Your task to perform on an android device: empty trash in the gmail app Image 0: 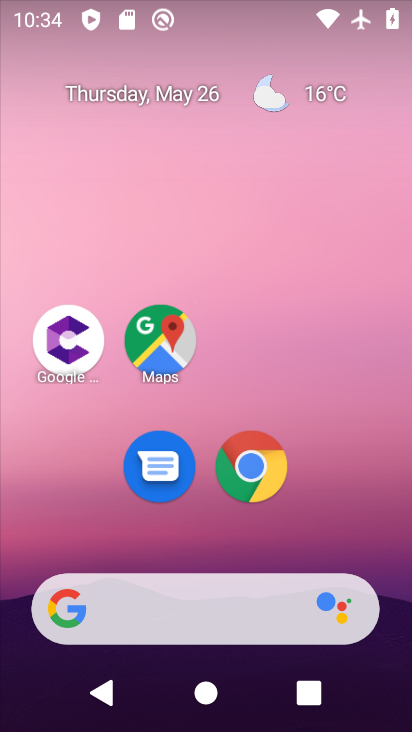
Step 0: drag from (333, 487) to (210, 120)
Your task to perform on an android device: empty trash in the gmail app Image 1: 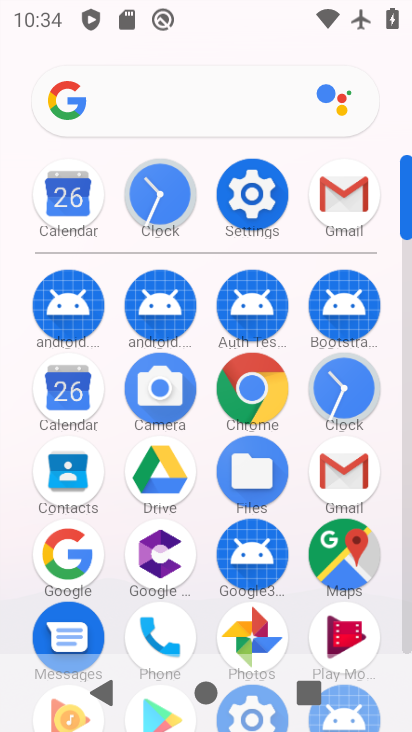
Step 1: click (338, 482)
Your task to perform on an android device: empty trash in the gmail app Image 2: 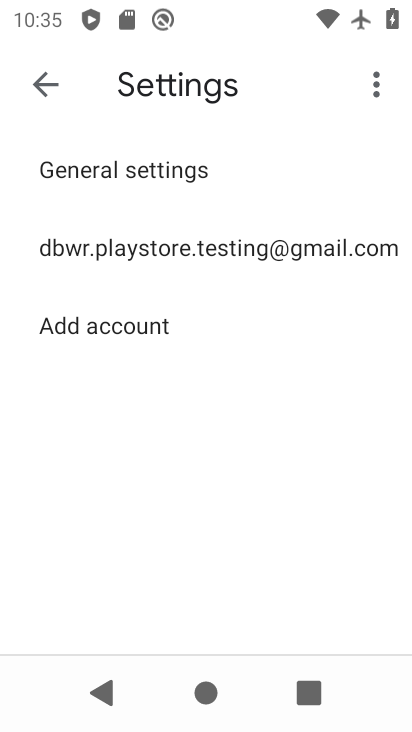
Step 2: press home button
Your task to perform on an android device: empty trash in the gmail app Image 3: 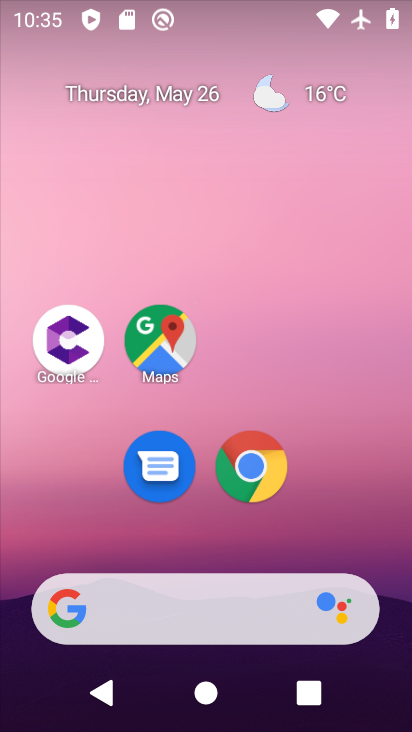
Step 3: drag from (333, 525) to (176, 51)
Your task to perform on an android device: empty trash in the gmail app Image 4: 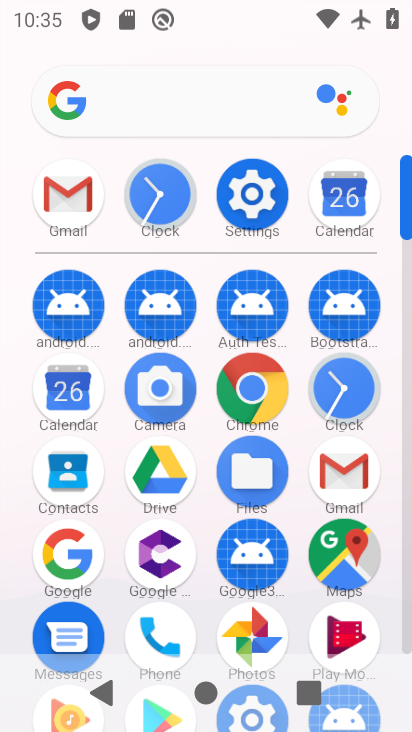
Step 4: click (331, 461)
Your task to perform on an android device: empty trash in the gmail app Image 5: 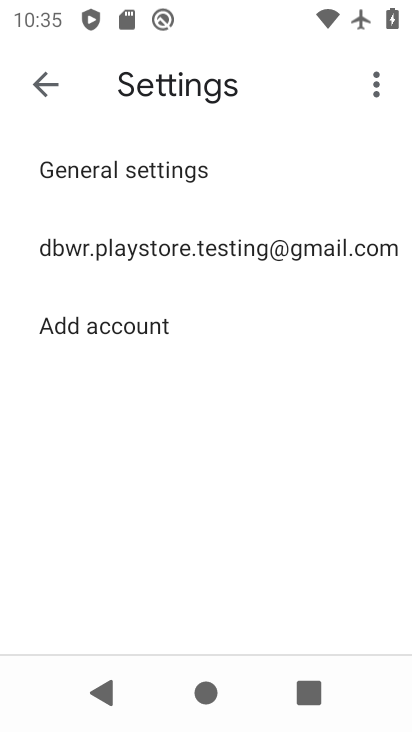
Step 5: click (53, 82)
Your task to perform on an android device: empty trash in the gmail app Image 6: 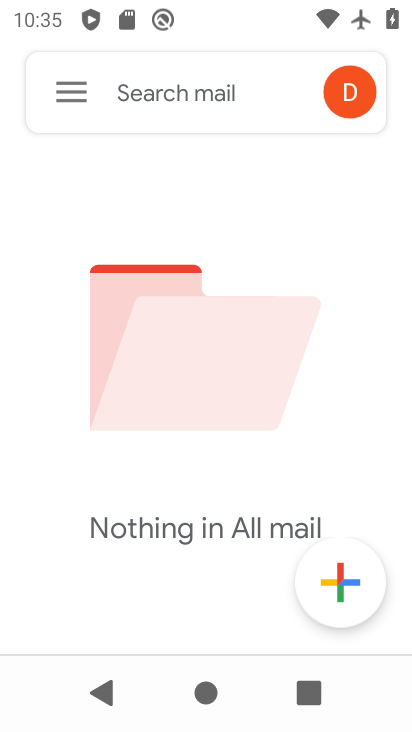
Step 6: click (68, 88)
Your task to perform on an android device: empty trash in the gmail app Image 7: 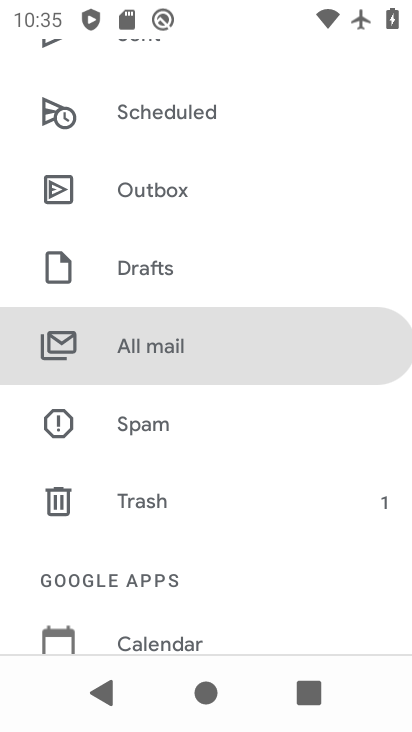
Step 7: click (136, 494)
Your task to perform on an android device: empty trash in the gmail app Image 8: 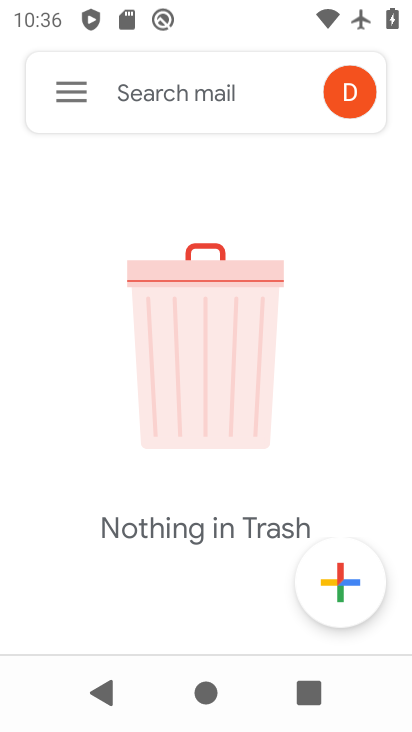
Step 8: task complete